Your task to perform on an android device: change the upload size in google photos Image 0: 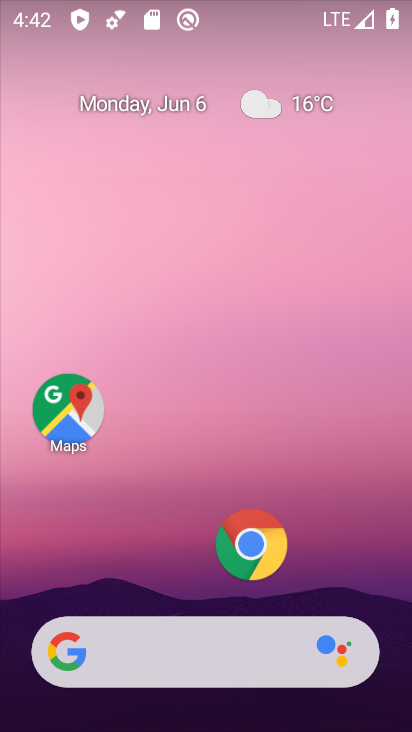
Step 0: drag from (183, 596) to (225, 63)
Your task to perform on an android device: change the upload size in google photos Image 1: 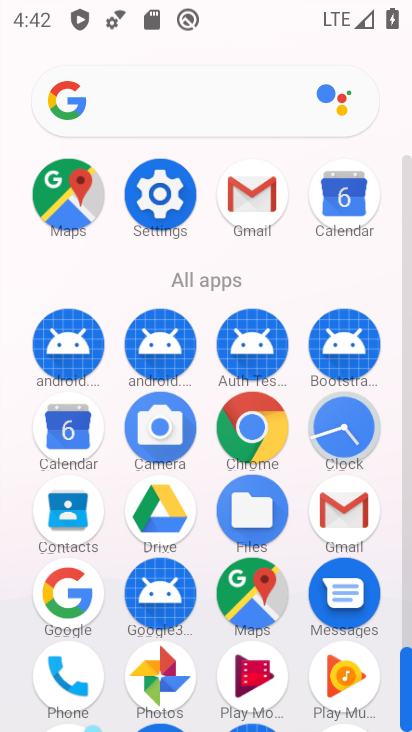
Step 1: click (158, 668)
Your task to perform on an android device: change the upload size in google photos Image 2: 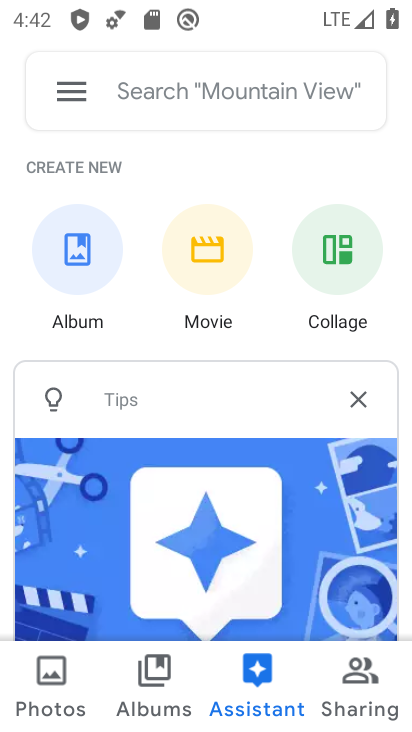
Step 2: click (69, 93)
Your task to perform on an android device: change the upload size in google photos Image 3: 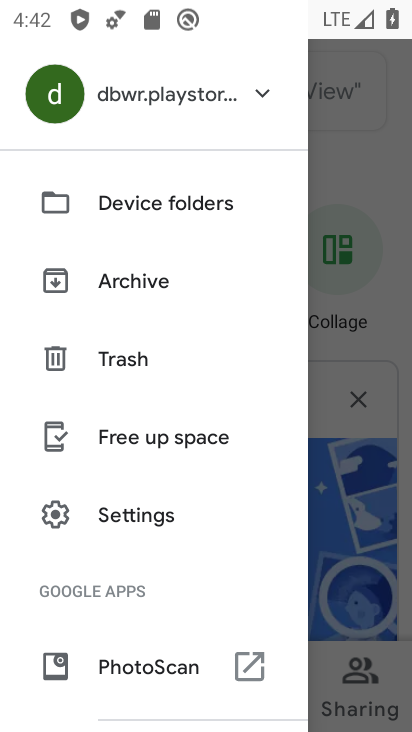
Step 3: click (83, 515)
Your task to perform on an android device: change the upload size in google photos Image 4: 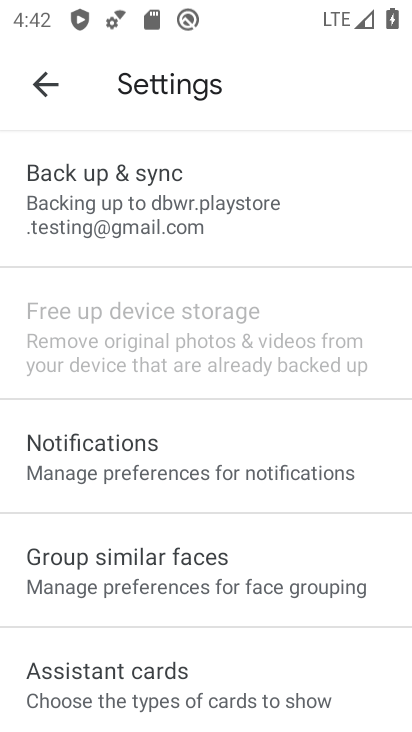
Step 4: click (208, 196)
Your task to perform on an android device: change the upload size in google photos Image 5: 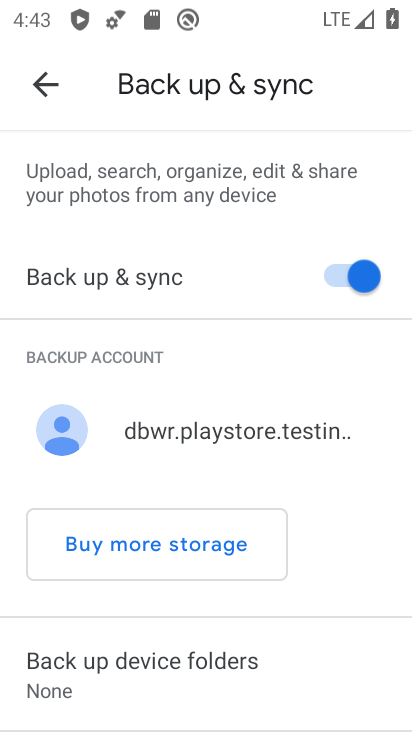
Step 5: drag from (235, 677) to (276, 163)
Your task to perform on an android device: change the upload size in google photos Image 6: 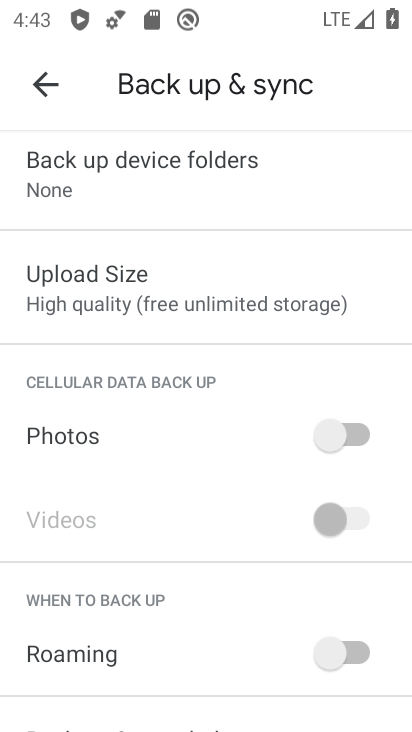
Step 6: click (171, 267)
Your task to perform on an android device: change the upload size in google photos Image 7: 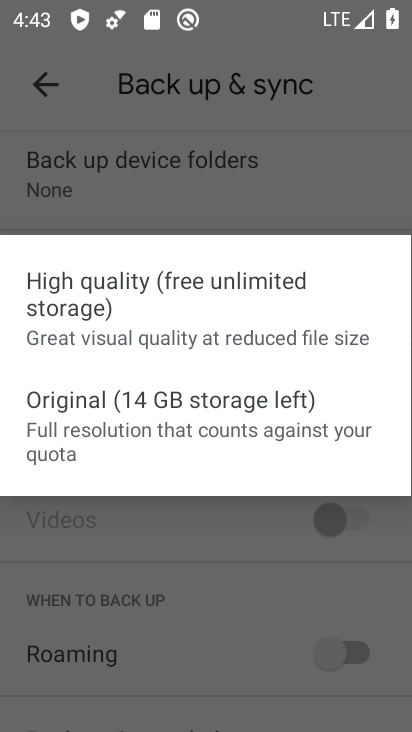
Step 7: click (144, 424)
Your task to perform on an android device: change the upload size in google photos Image 8: 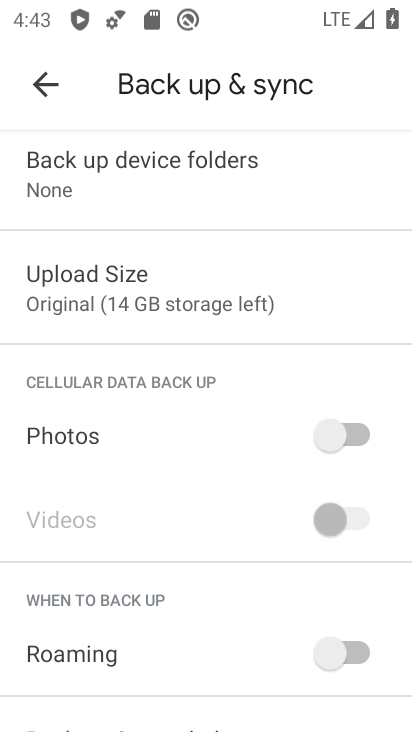
Step 8: task complete